Your task to perform on an android device: Find coffee shops on Maps Image 0: 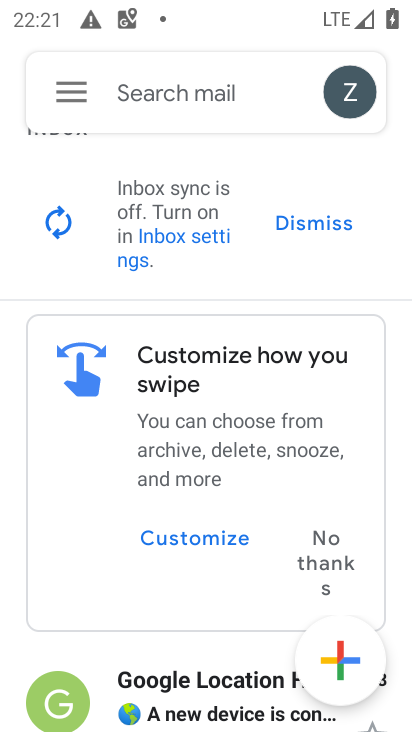
Step 0: press home button
Your task to perform on an android device: Find coffee shops on Maps Image 1: 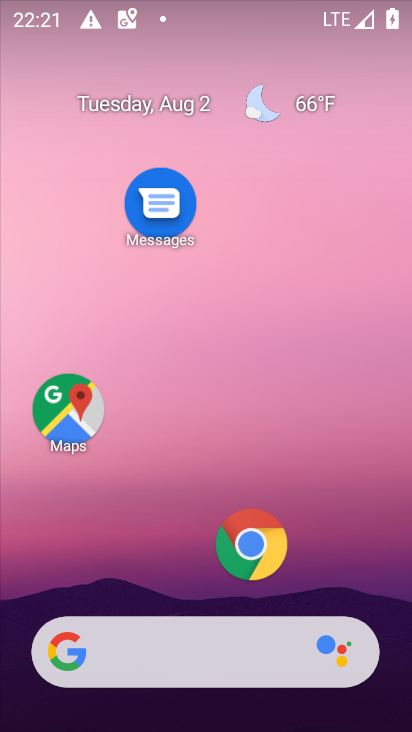
Step 1: click (53, 400)
Your task to perform on an android device: Find coffee shops on Maps Image 2: 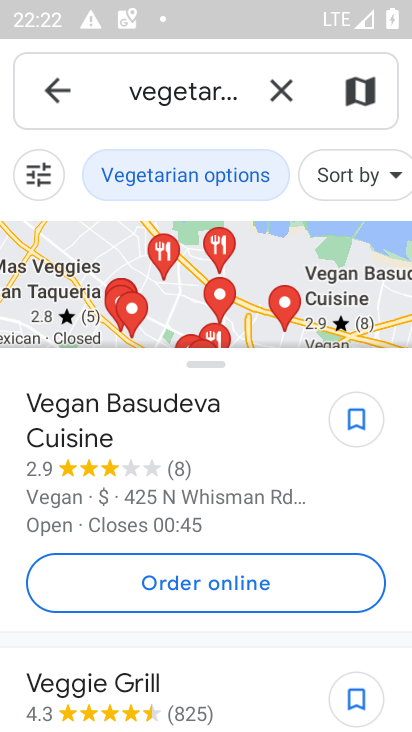
Step 2: task complete